Your task to perform on an android device: check google app version Image 0: 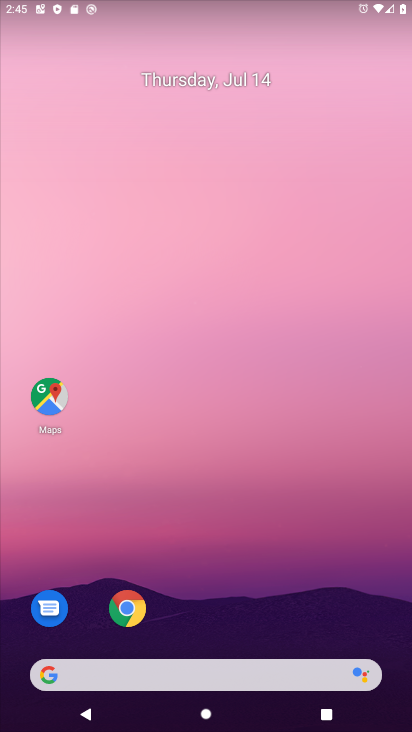
Step 0: drag from (242, 697) to (231, 67)
Your task to perform on an android device: check google app version Image 1: 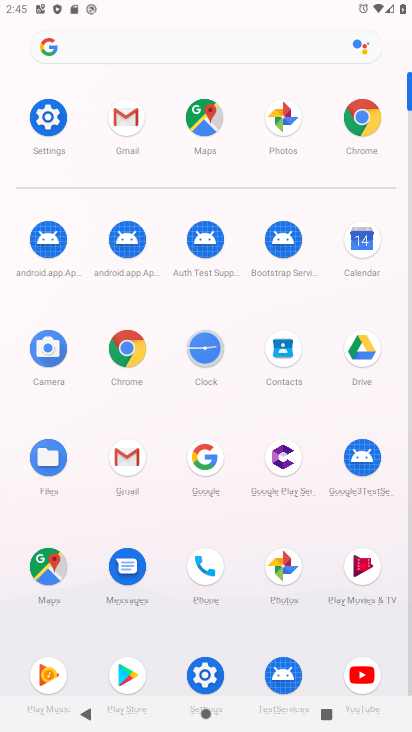
Step 1: click (202, 462)
Your task to perform on an android device: check google app version Image 2: 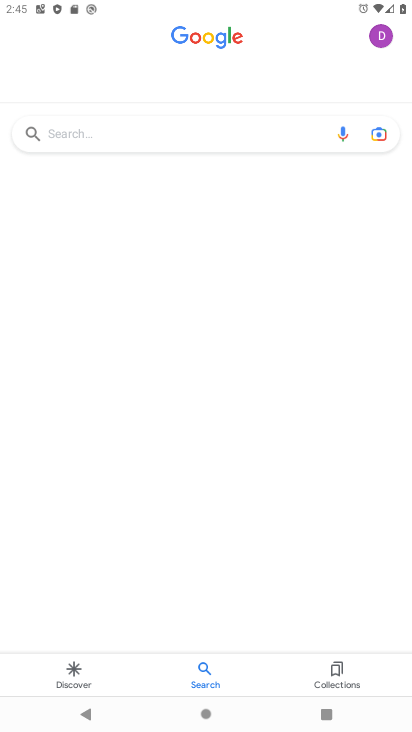
Step 2: click (381, 34)
Your task to perform on an android device: check google app version Image 3: 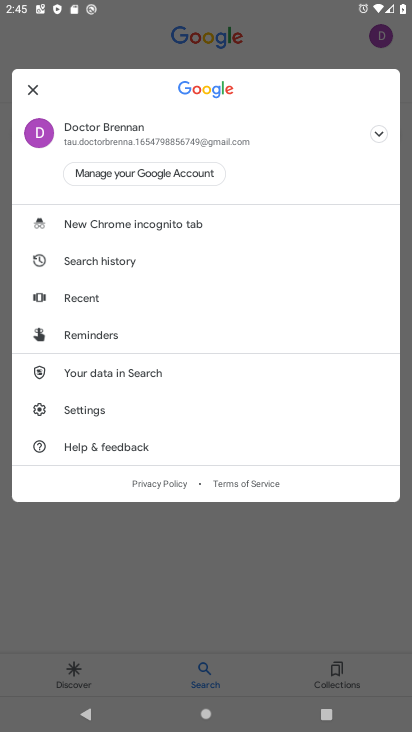
Step 3: click (88, 408)
Your task to perform on an android device: check google app version Image 4: 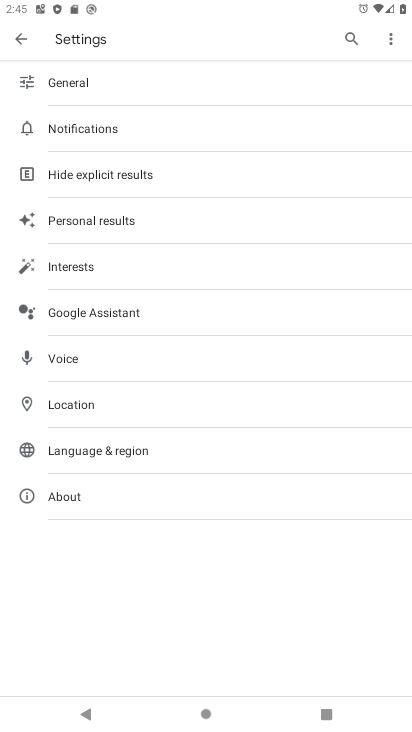
Step 4: click (58, 493)
Your task to perform on an android device: check google app version Image 5: 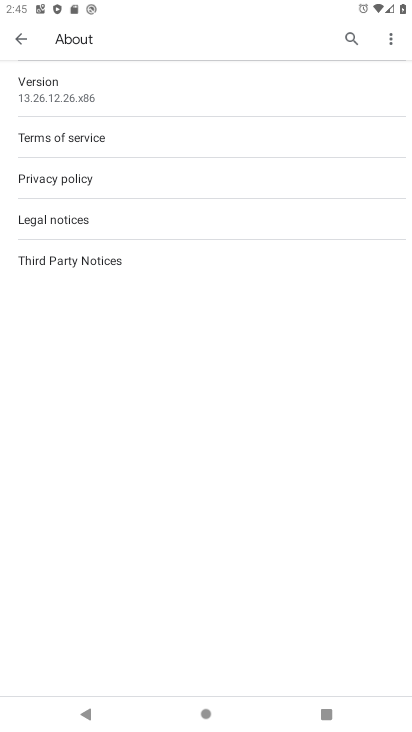
Step 5: task complete